Your task to perform on an android device: toggle notifications settings in the gmail app Image 0: 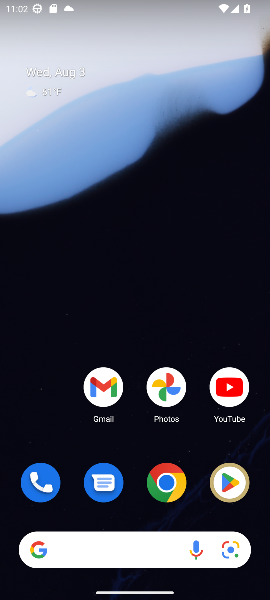
Step 0: click (104, 394)
Your task to perform on an android device: toggle notifications settings in the gmail app Image 1: 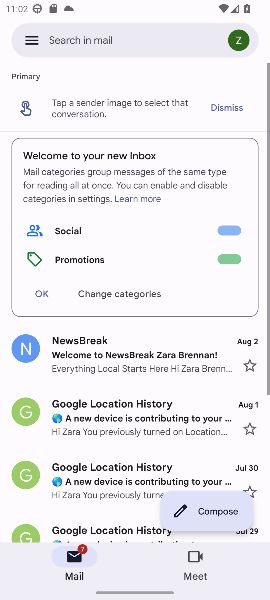
Step 1: click (104, 394)
Your task to perform on an android device: toggle notifications settings in the gmail app Image 2: 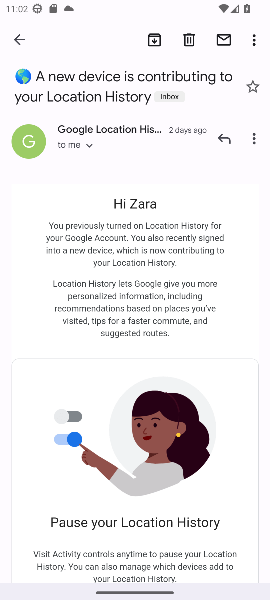
Step 2: task complete